Your task to perform on an android device: When is my next meeting? Image 0: 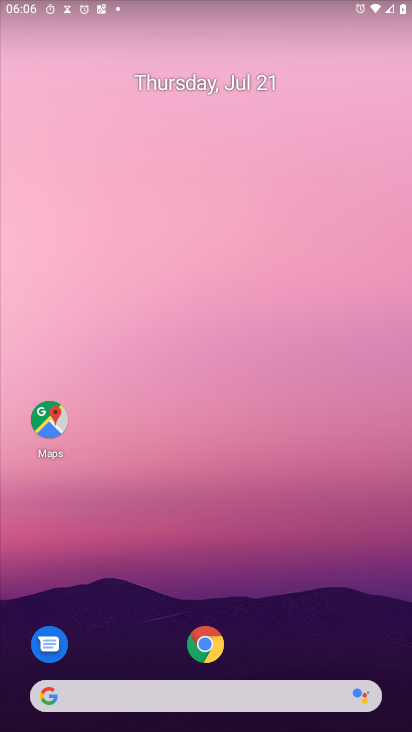
Step 0: press home button
Your task to perform on an android device: When is my next meeting? Image 1: 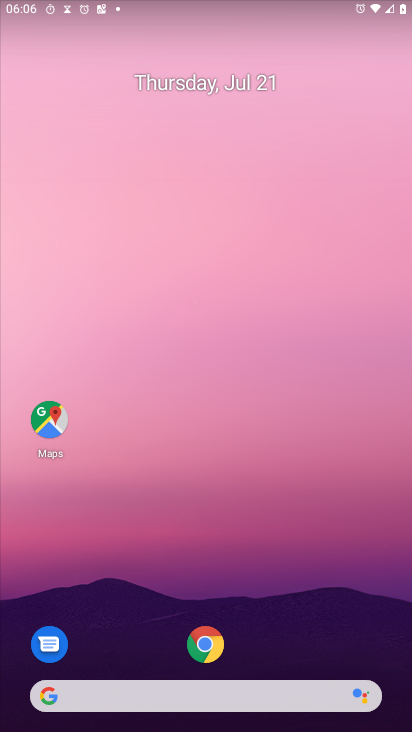
Step 1: drag from (321, 632) to (316, 112)
Your task to perform on an android device: When is my next meeting? Image 2: 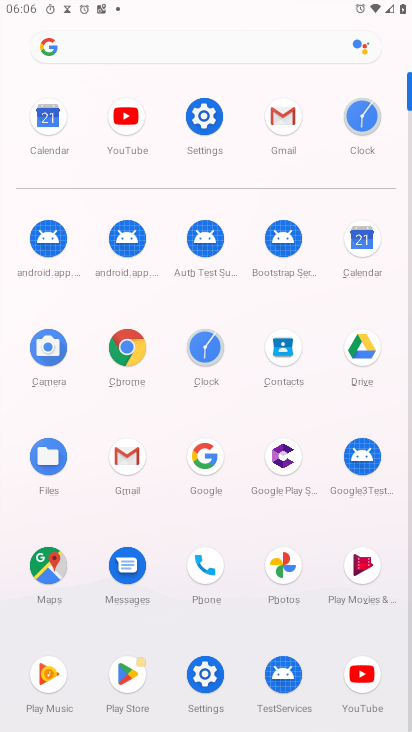
Step 2: click (363, 233)
Your task to perform on an android device: When is my next meeting? Image 3: 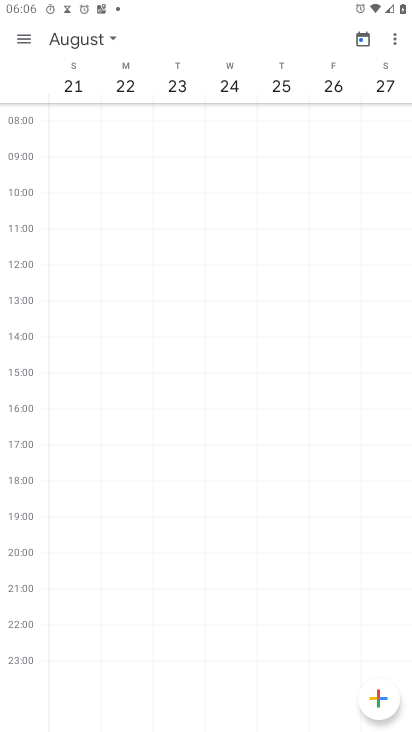
Step 3: click (27, 35)
Your task to perform on an android device: When is my next meeting? Image 4: 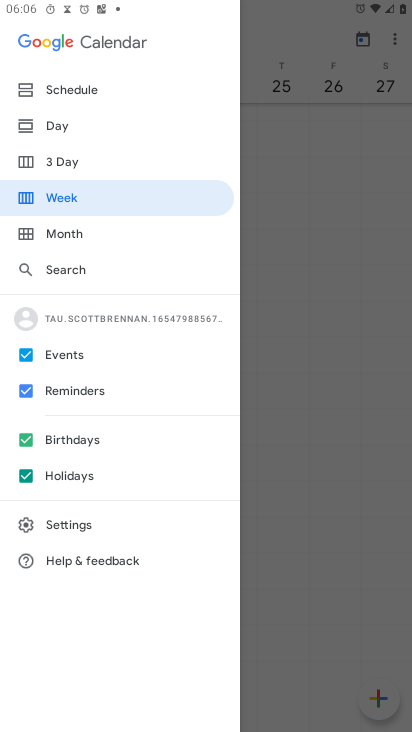
Step 4: click (88, 94)
Your task to perform on an android device: When is my next meeting? Image 5: 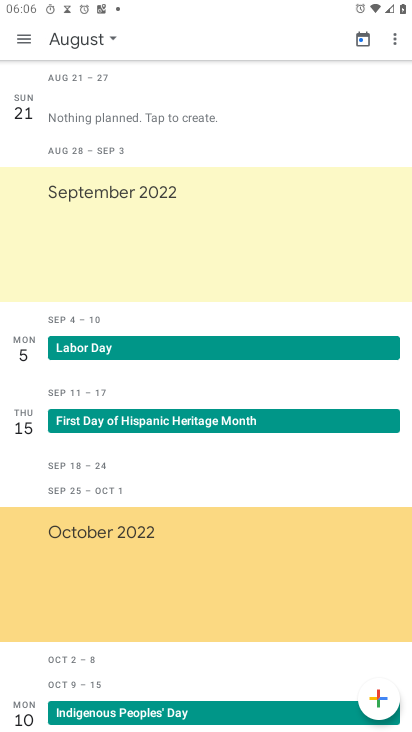
Step 5: task complete